Your task to perform on an android device: open app "ColorNote Notepad Notes" (install if not already installed) Image 0: 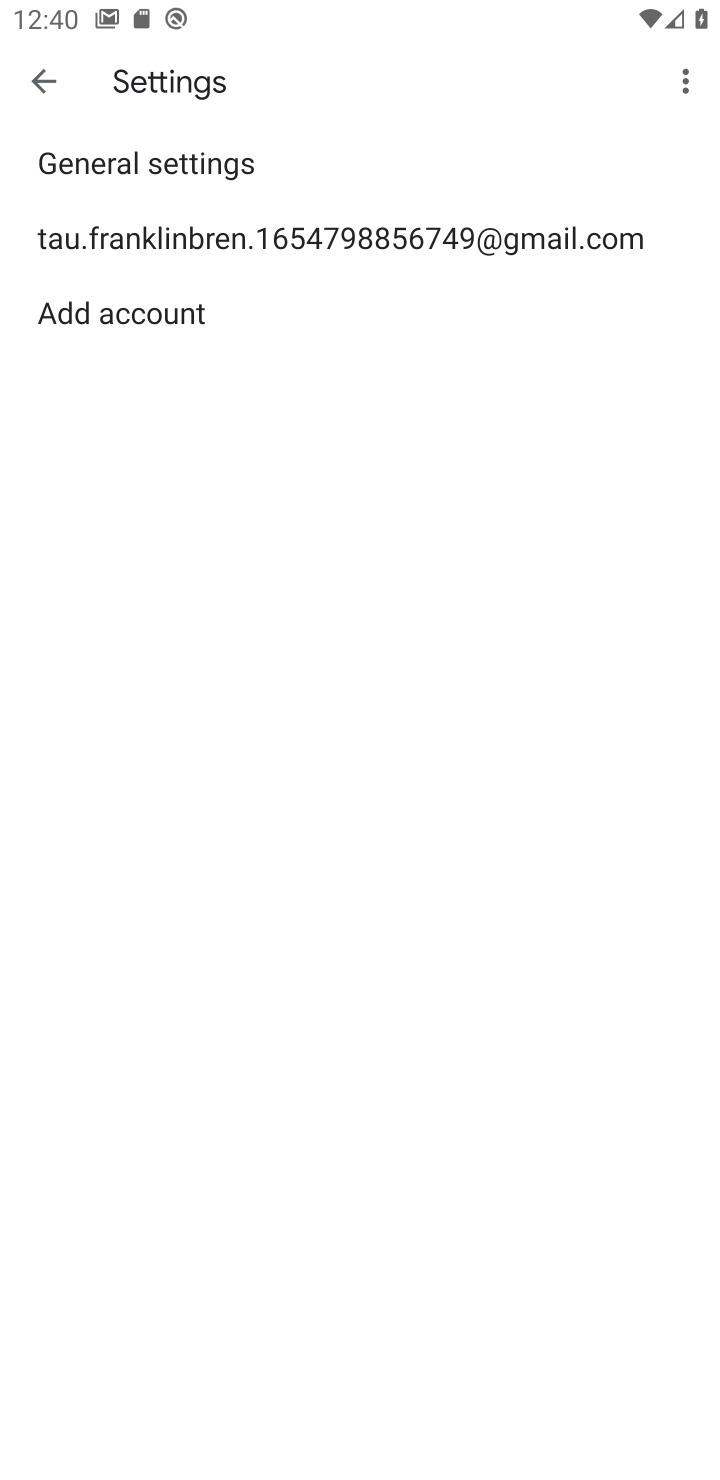
Step 0: press home button
Your task to perform on an android device: open app "ColorNote Notepad Notes" (install if not already installed) Image 1: 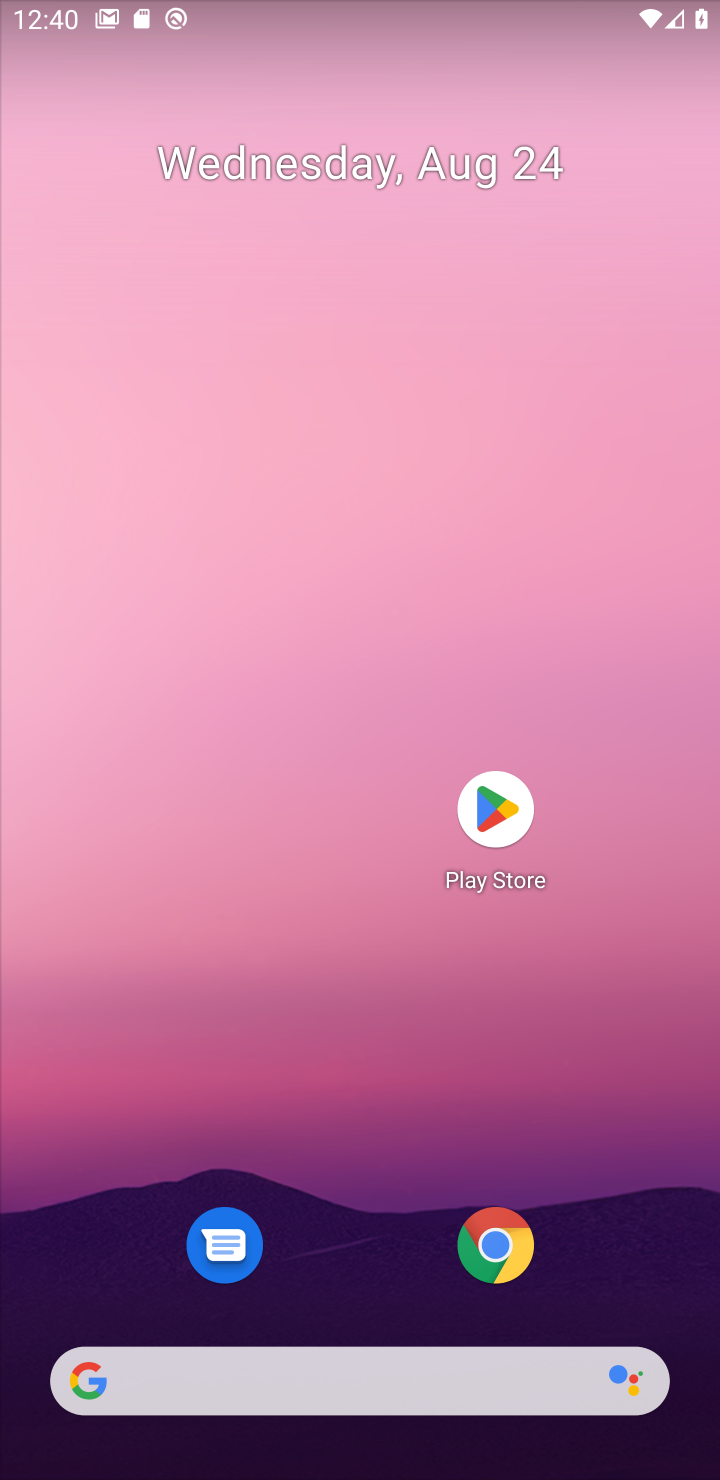
Step 1: click (485, 794)
Your task to perform on an android device: open app "ColorNote Notepad Notes" (install if not already installed) Image 2: 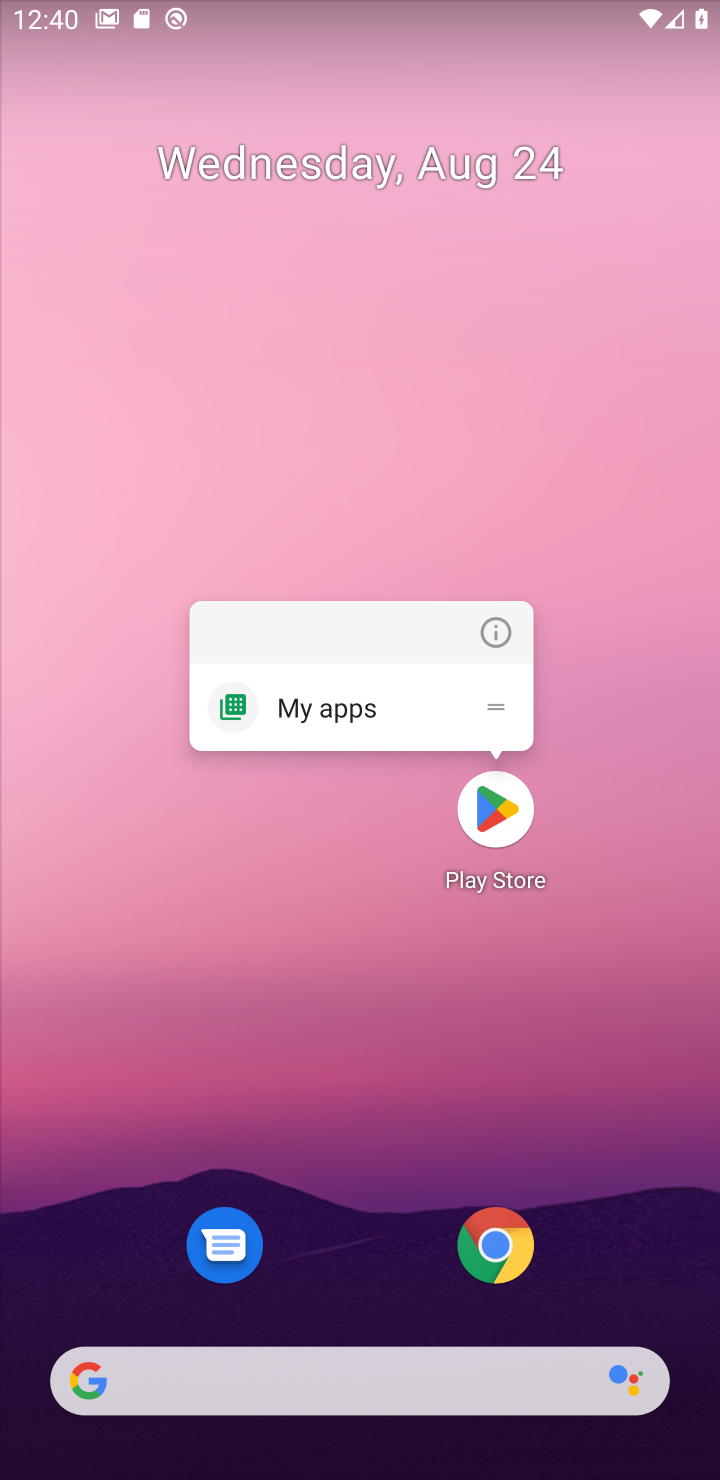
Step 2: click (487, 807)
Your task to perform on an android device: open app "ColorNote Notepad Notes" (install if not already installed) Image 3: 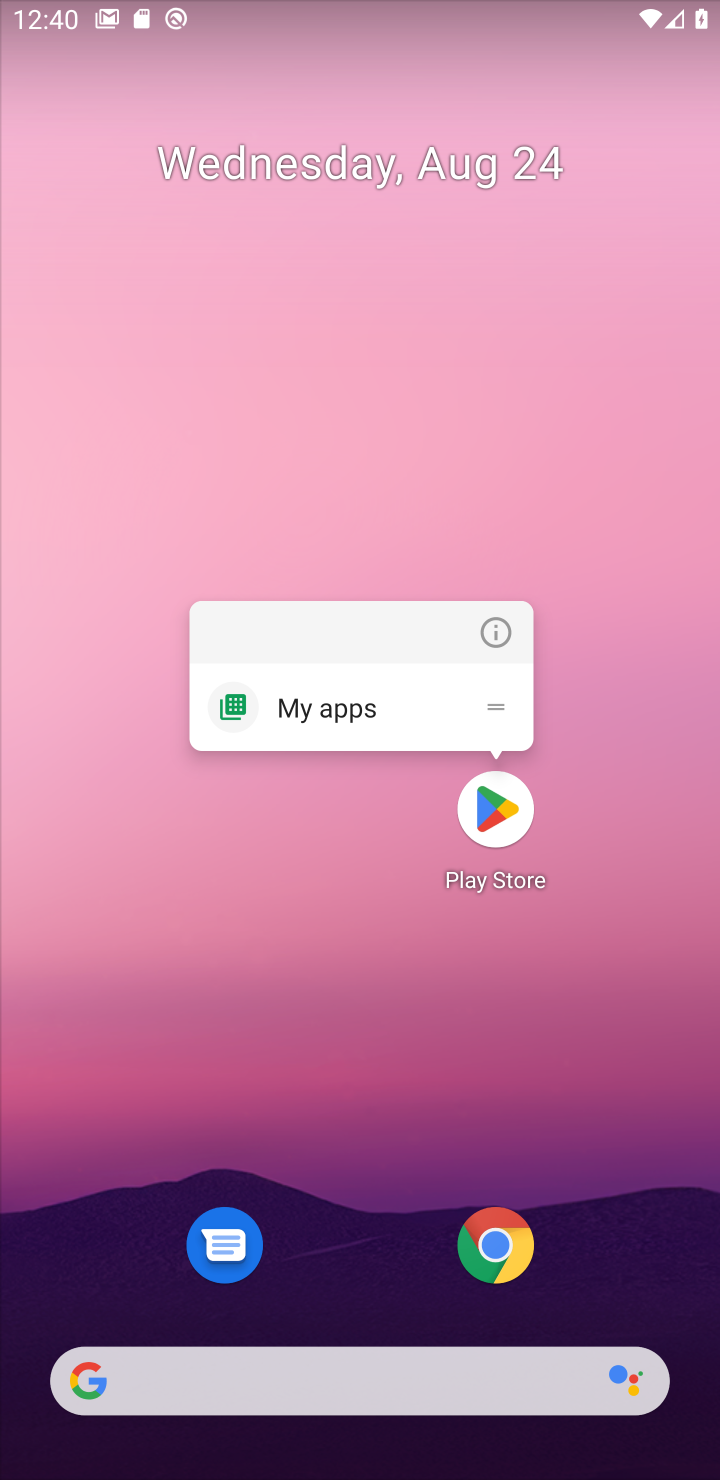
Step 3: click (487, 807)
Your task to perform on an android device: open app "ColorNote Notepad Notes" (install if not already installed) Image 4: 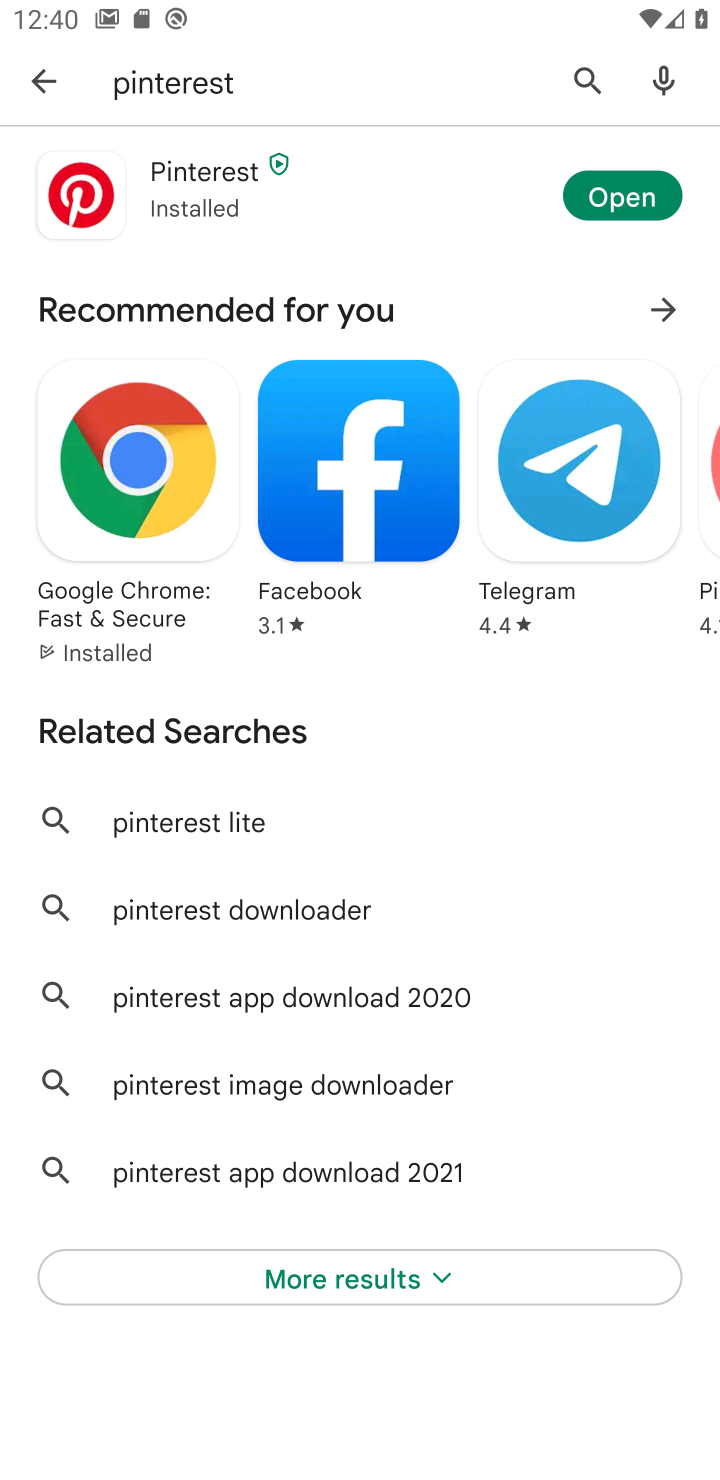
Step 4: click (580, 77)
Your task to perform on an android device: open app "ColorNote Notepad Notes" (install if not already installed) Image 5: 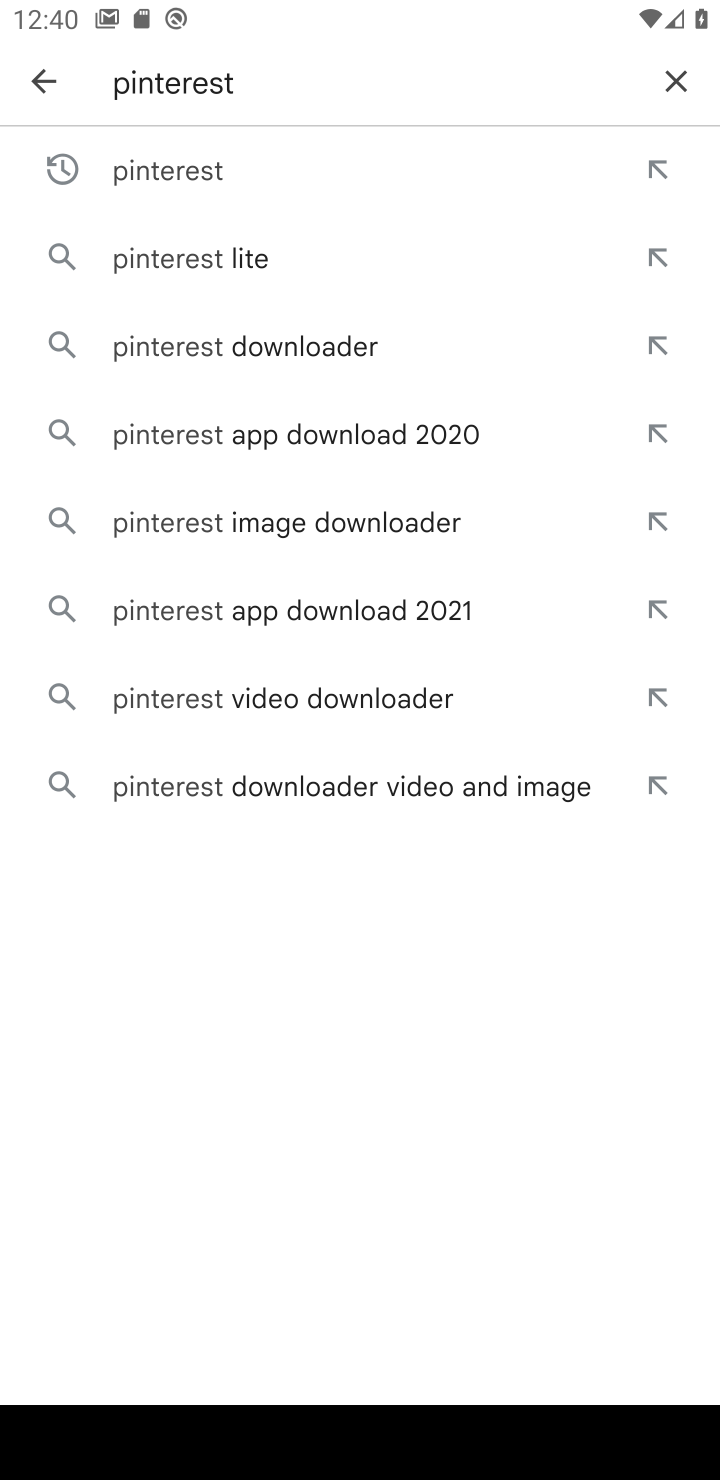
Step 5: click (673, 78)
Your task to perform on an android device: open app "ColorNote Notepad Notes" (install if not already installed) Image 6: 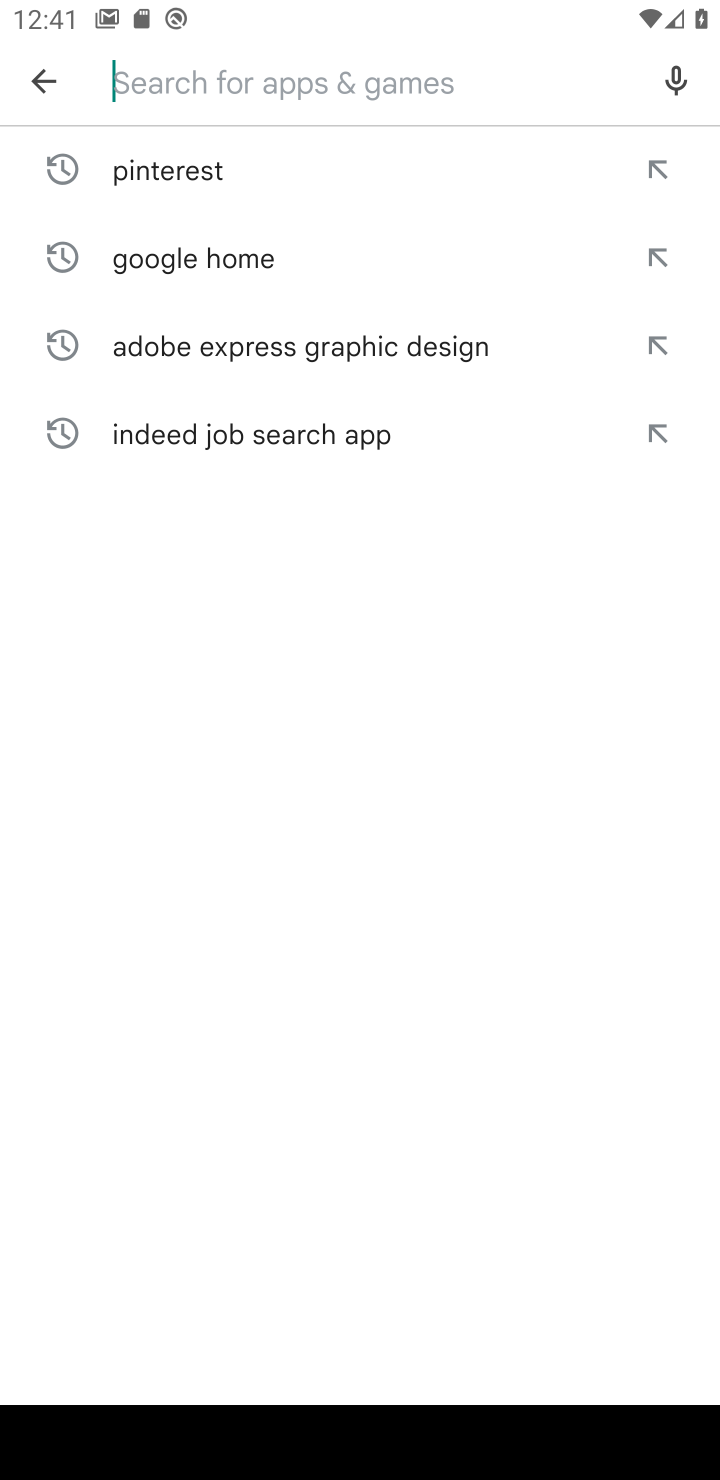
Step 6: type "ColorNote Notepad Notes"
Your task to perform on an android device: open app "ColorNote Notepad Notes" (install if not already installed) Image 7: 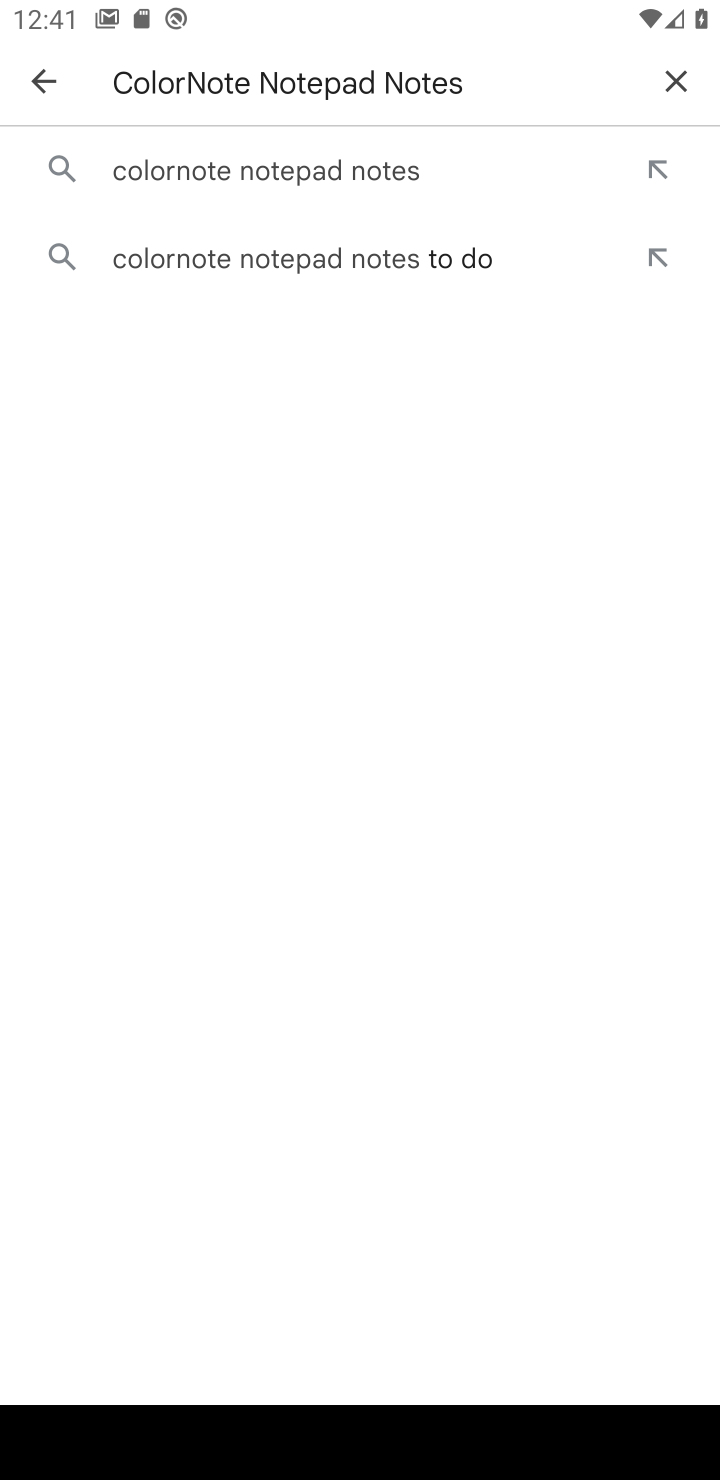
Step 7: click (292, 158)
Your task to perform on an android device: open app "ColorNote Notepad Notes" (install if not already installed) Image 8: 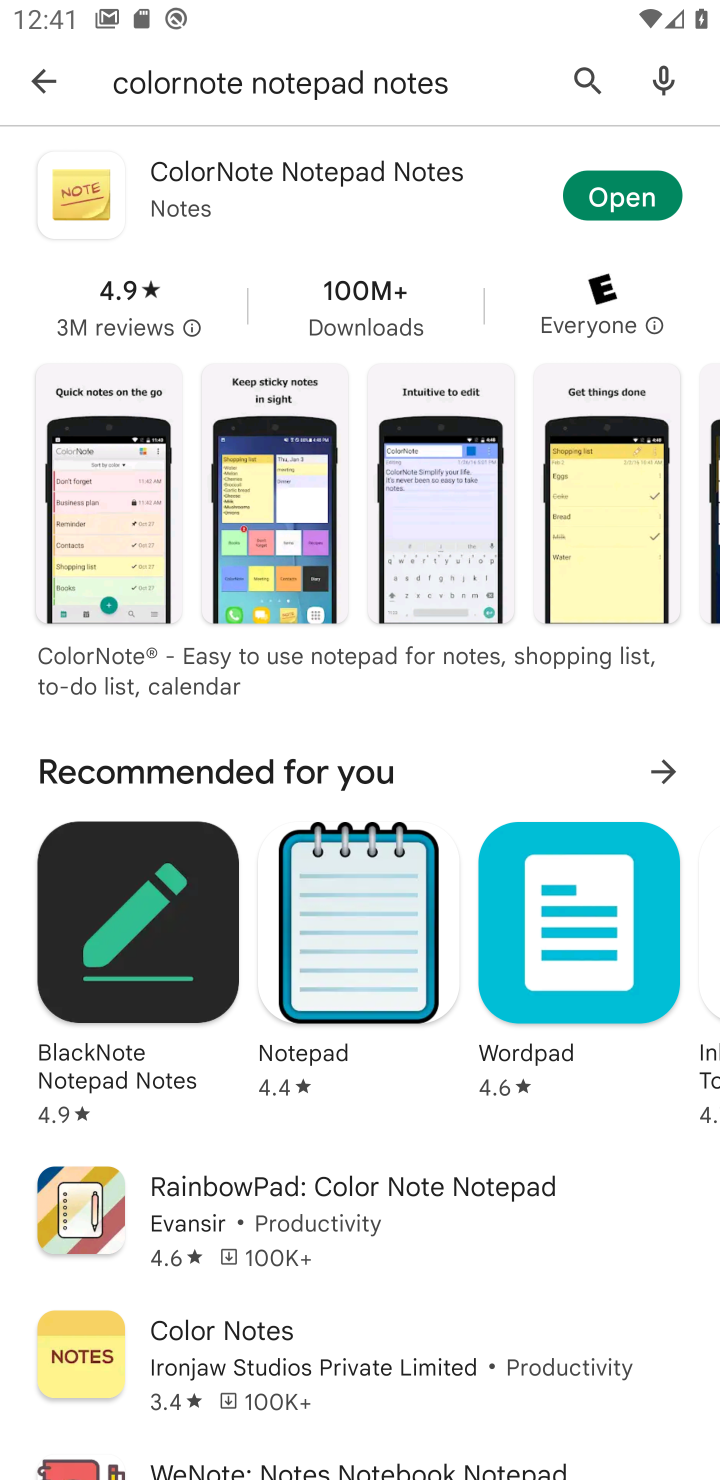
Step 8: click (646, 189)
Your task to perform on an android device: open app "ColorNote Notepad Notes" (install if not already installed) Image 9: 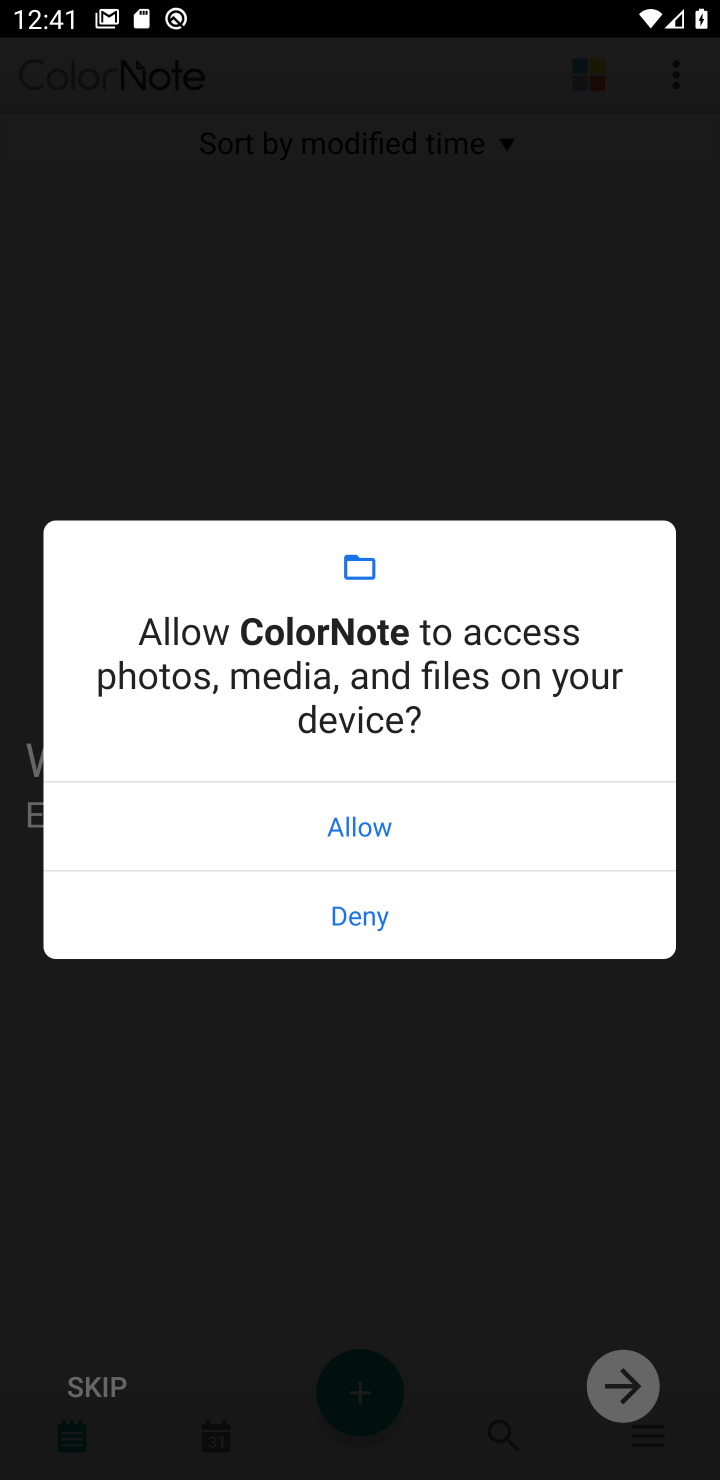
Step 9: task complete